Your task to perform on an android device: delete the emails in spam in the gmail app Image 0: 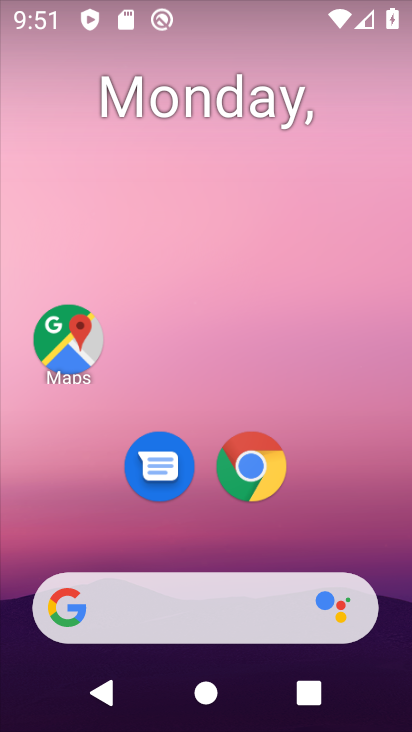
Step 0: press home button
Your task to perform on an android device: delete the emails in spam in the gmail app Image 1: 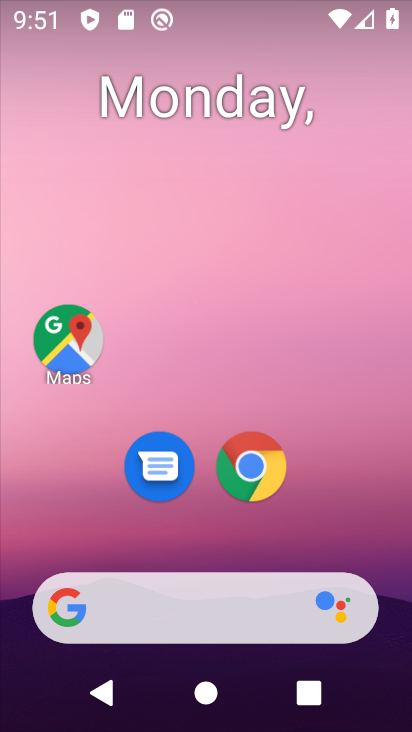
Step 1: drag from (274, 521) to (320, 4)
Your task to perform on an android device: delete the emails in spam in the gmail app Image 2: 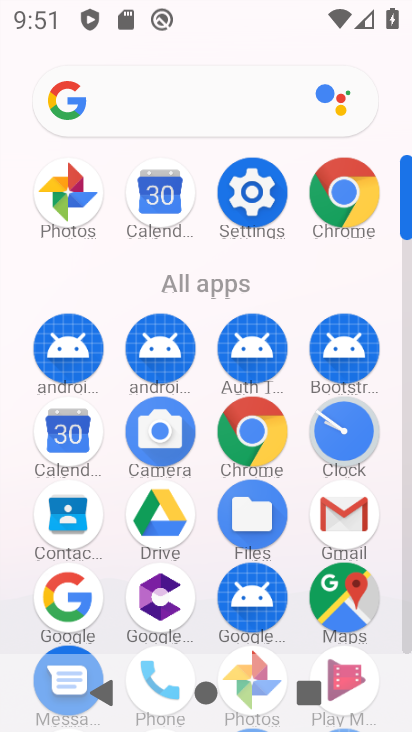
Step 2: click (349, 521)
Your task to perform on an android device: delete the emails in spam in the gmail app Image 3: 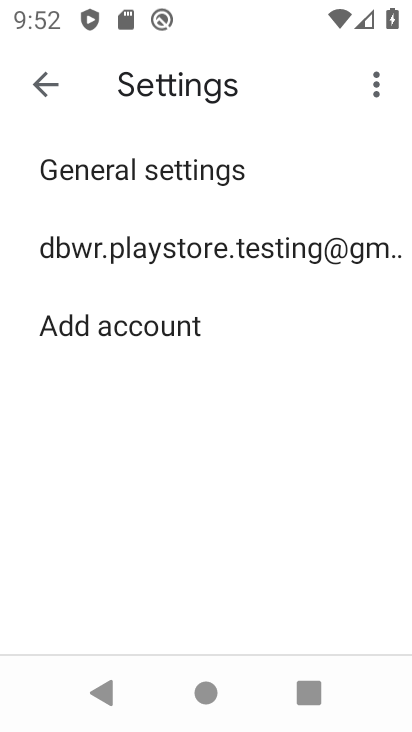
Step 3: click (47, 73)
Your task to perform on an android device: delete the emails in spam in the gmail app Image 4: 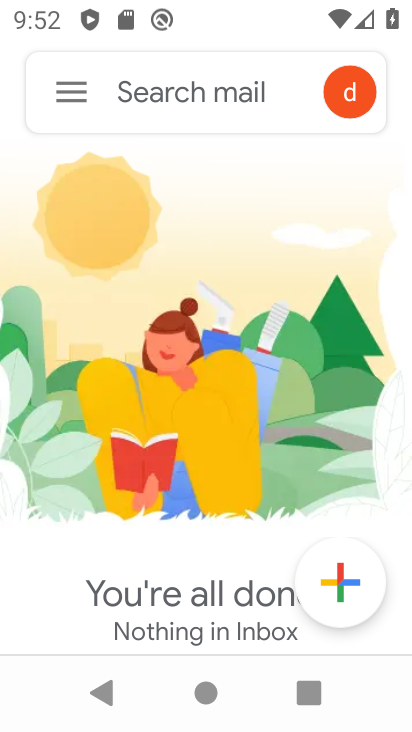
Step 4: click (66, 87)
Your task to perform on an android device: delete the emails in spam in the gmail app Image 5: 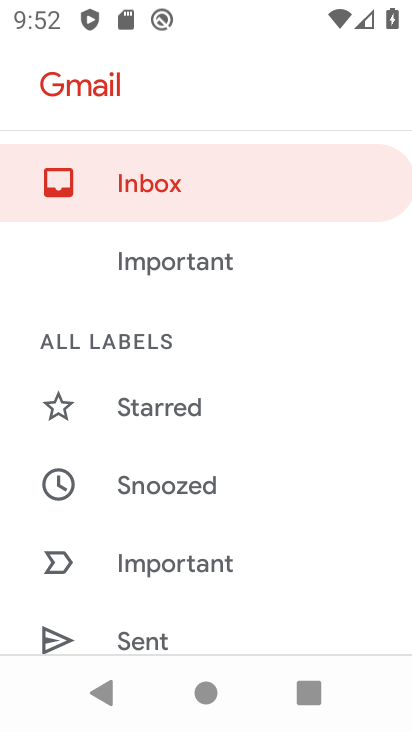
Step 5: task complete